Your task to perform on an android device: Open Google Chrome and click the shortcut for Amazon.com Image 0: 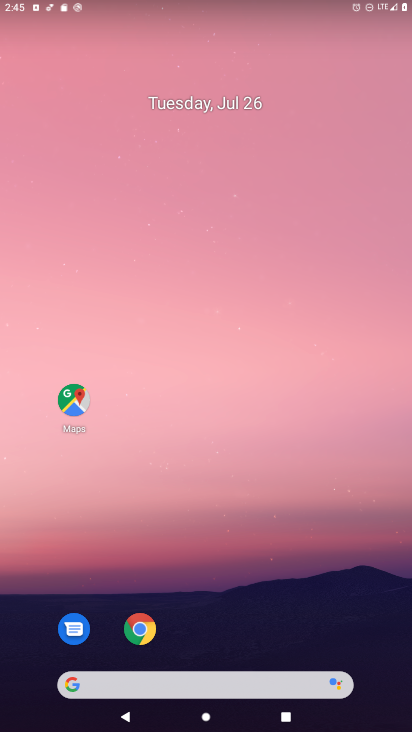
Step 0: click (143, 631)
Your task to perform on an android device: Open Google Chrome and click the shortcut for Amazon.com Image 1: 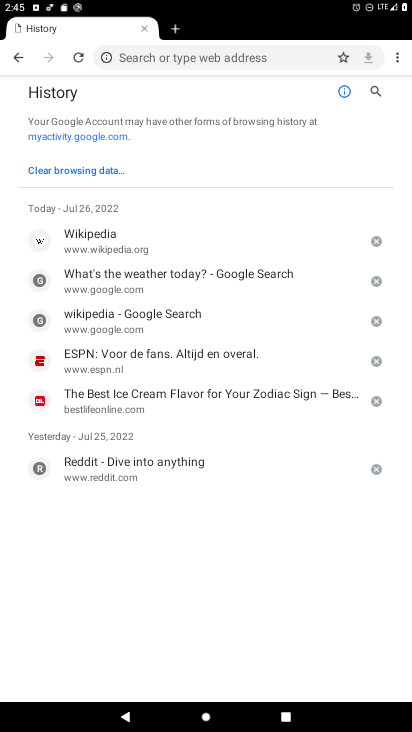
Step 1: click (393, 60)
Your task to perform on an android device: Open Google Chrome and click the shortcut for Amazon.com Image 2: 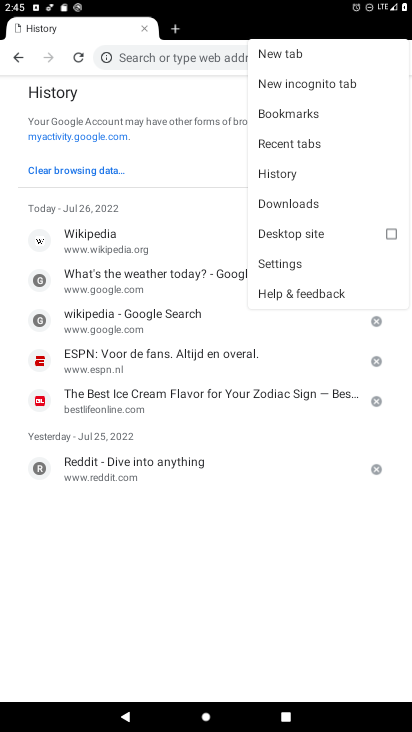
Step 2: click (285, 50)
Your task to perform on an android device: Open Google Chrome and click the shortcut for Amazon.com Image 3: 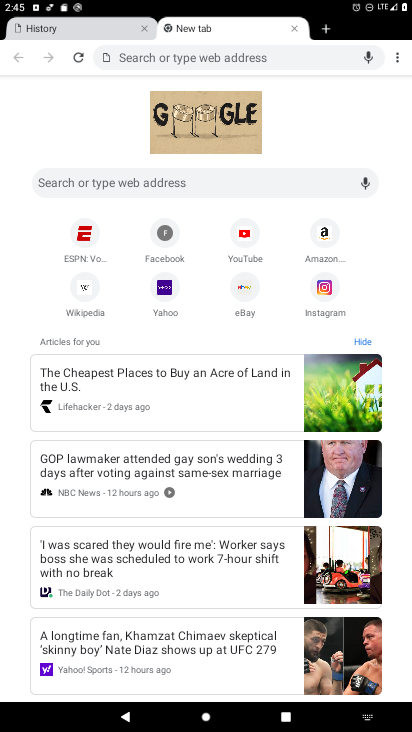
Step 3: click (325, 233)
Your task to perform on an android device: Open Google Chrome and click the shortcut for Amazon.com Image 4: 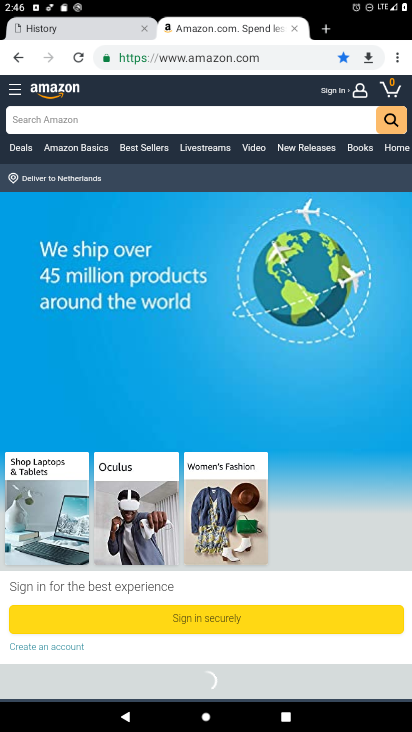
Step 4: task complete